Your task to perform on an android device: Open battery settings Image 0: 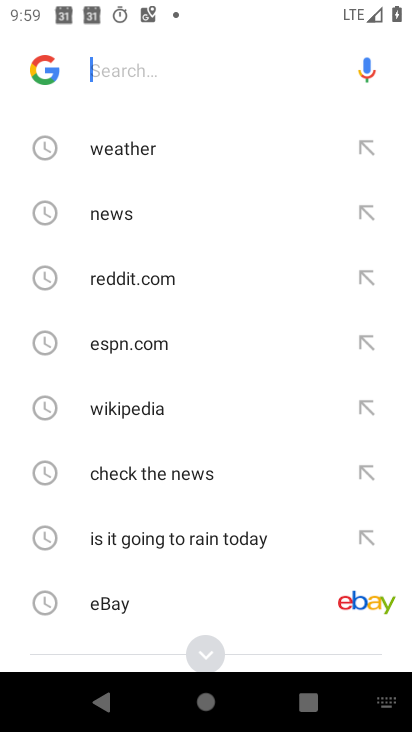
Step 0: press home button
Your task to perform on an android device: Open battery settings Image 1: 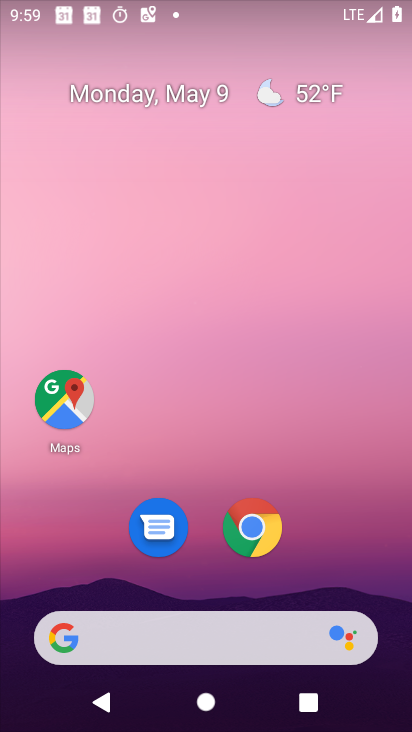
Step 1: drag from (368, 588) to (353, 139)
Your task to perform on an android device: Open battery settings Image 2: 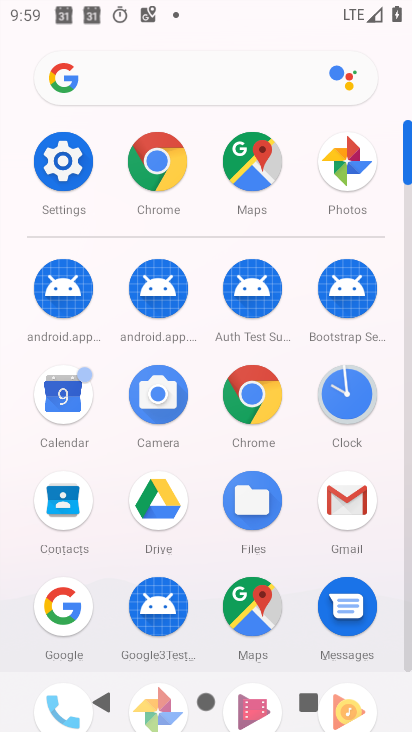
Step 2: click (56, 174)
Your task to perform on an android device: Open battery settings Image 3: 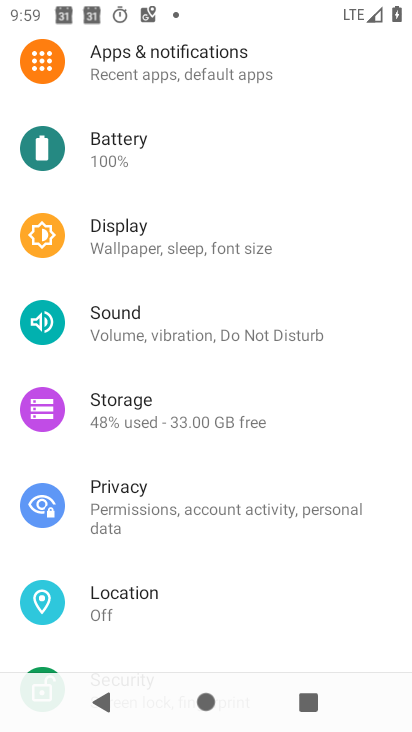
Step 3: click (129, 147)
Your task to perform on an android device: Open battery settings Image 4: 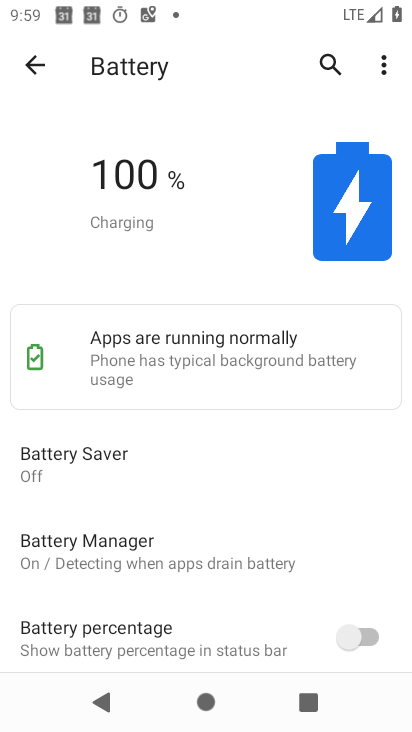
Step 4: task complete